Your task to perform on an android device: toggle sleep mode Image 0: 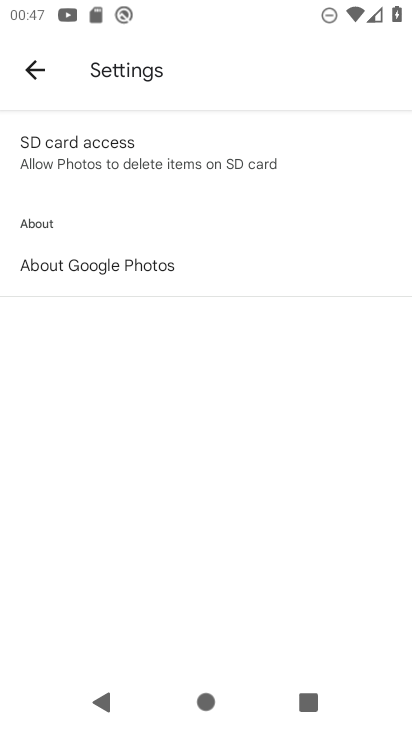
Step 0: press home button
Your task to perform on an android device: toggle sleep mode Image 1: 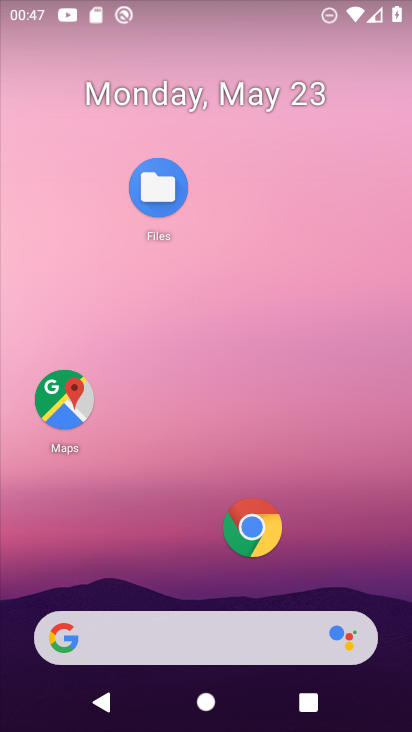
Step 1: drag from (338, 534) to (78, 10)
Your task to perform on an android device: toggle sleep mode Image 2: 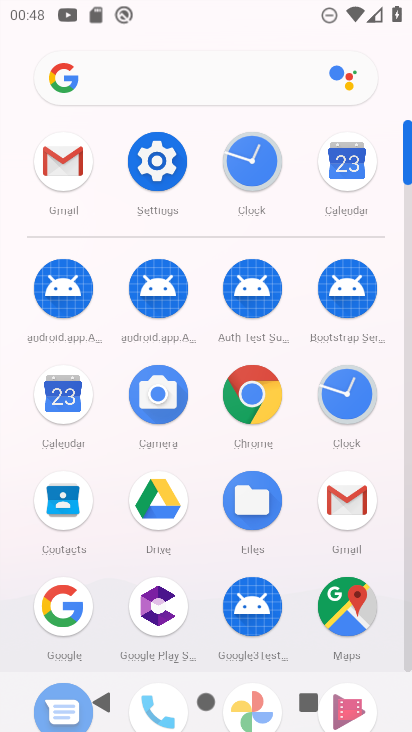
Step 2: click (150, 164)
Your task to perform on an android device: toggle sleep mode Image 3: 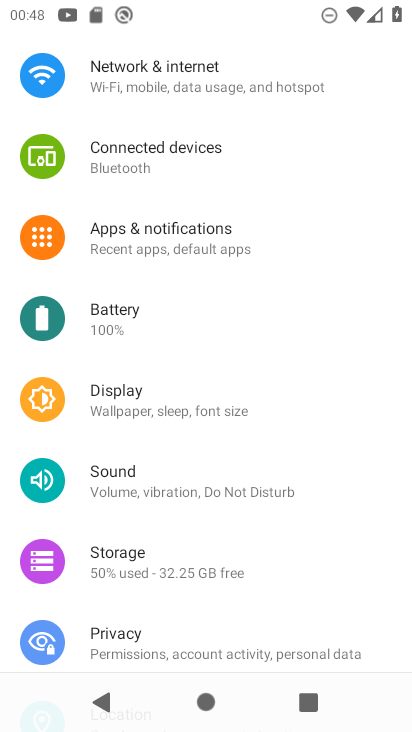
Step 3: click (127, 393)
Your task to perform on an android device: toggle sleep mode Image 4: 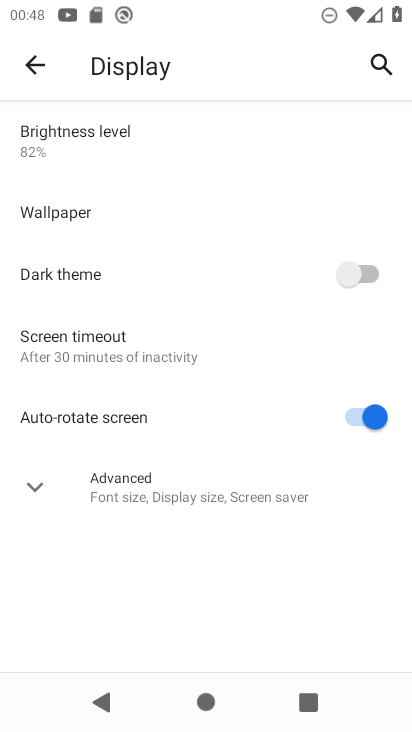
Step 4: task complete